Your task to perform on an android device: turn vacation reply on in the gmail app Image 0: 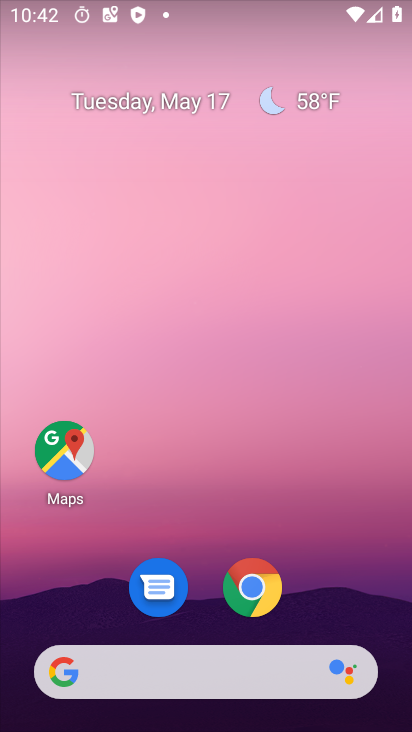
Step 0: drag from (313, 614) to (221, 145)
Your task to perform on an android device: turn vacation reply on in the gmail app Image 1: 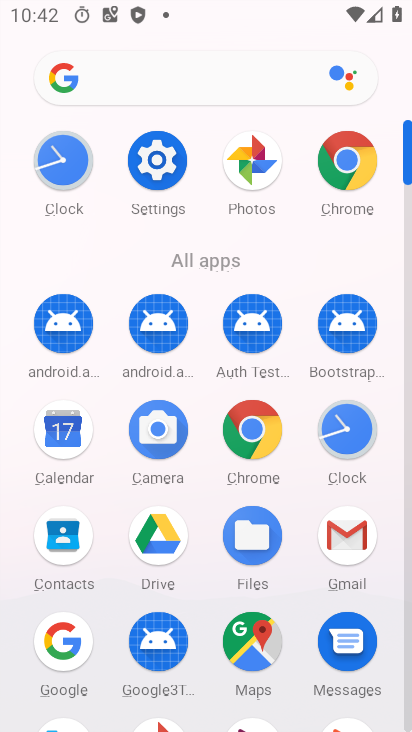
Step 1: drag from (297, 490) to (299, 305)
Your task to perform on an android device: turn vacation reply on in the gmail app Image 2: 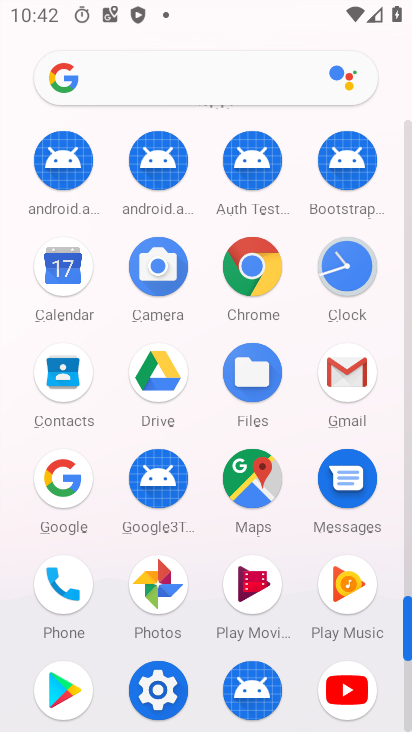
Step 2: click (348, 372)
Your task to perform on an android device: turn vacation reply on in the gmail app Image 3: 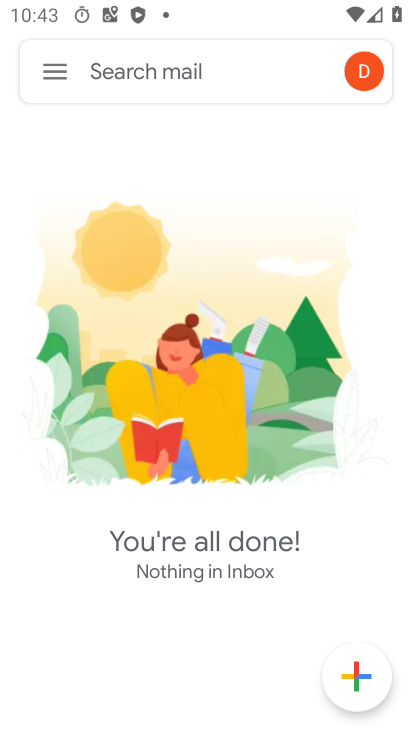
Step 3: click (56, 67)
Your task to perform on an android device: turn vacation reply on in the gmail app Image 4: 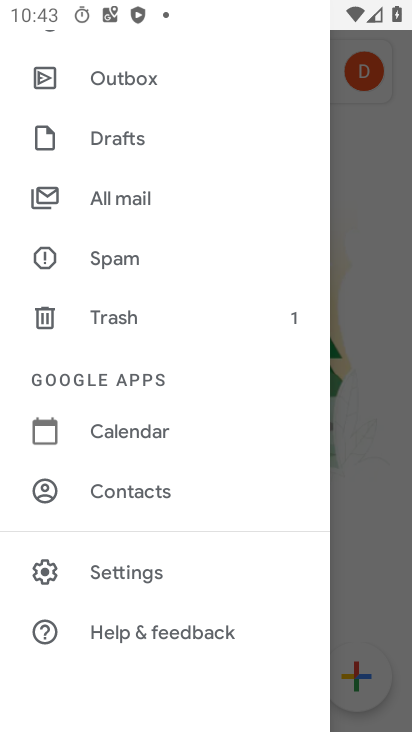
Step 4: click (120, 572)
Your task to perform on an android device: turn vacation reply on in the gmail app Image 5: 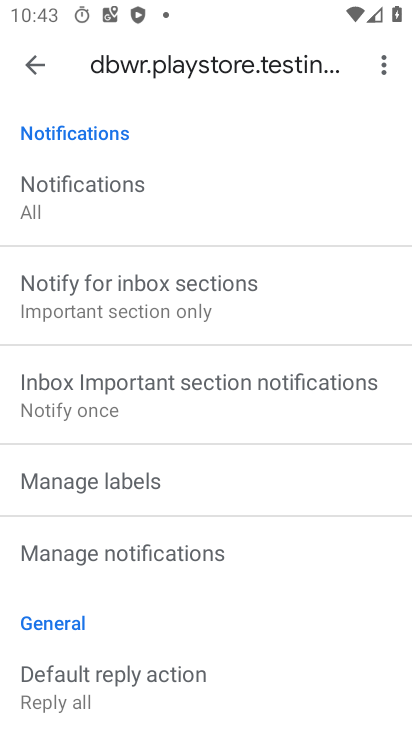
Step 5: drag from (151, 500) to (182, 403)
Your task to perform on an android device: turn vacation reply on in the gmail app Image 6: 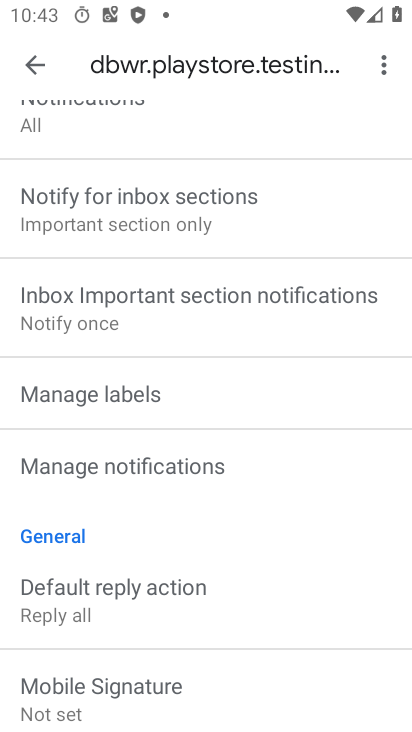
Step 6: drag from (137, 534) to (178, 452)
Your task to perform on an android device: turn vacation reply on in the gmail app Image 7: 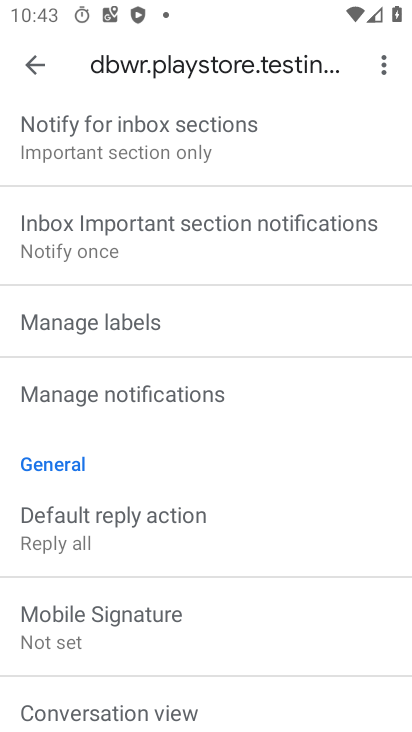
Step 7: drag from (151, 571) to (198, 472)
Your task to perform on an android device: turn vacation reply on in the gmail app Image 8: 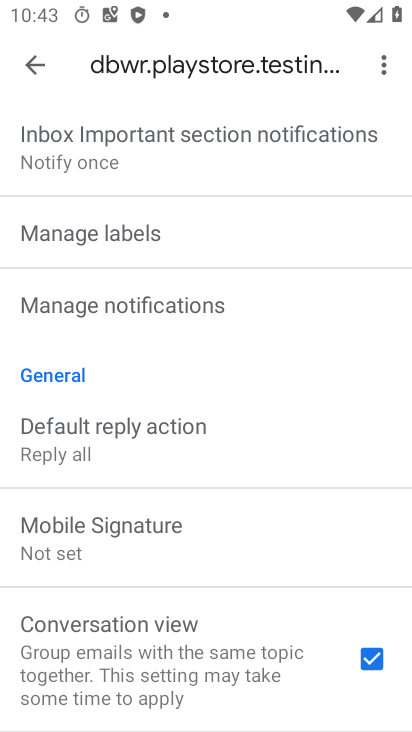
Step 8: drag from (140, 564) to (193, 476)
Your task to perform on an android device: turn vacation reply on in the gmail app Image 9: 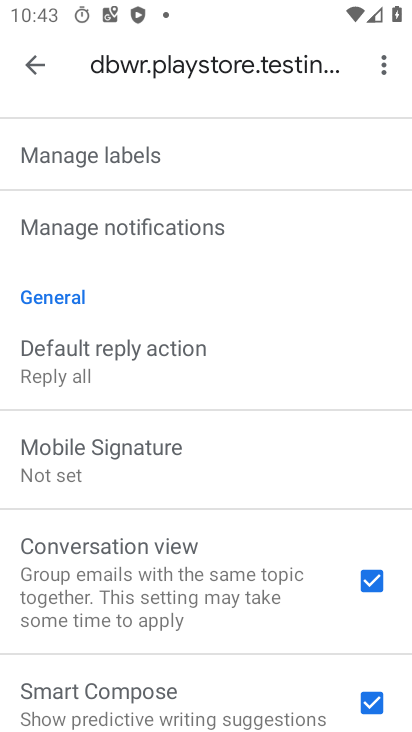
Step 9: drag from (120, 633) to (174, 549)
Your task to perform on an android device: turn vacation reply on in the gmail app Image 10: 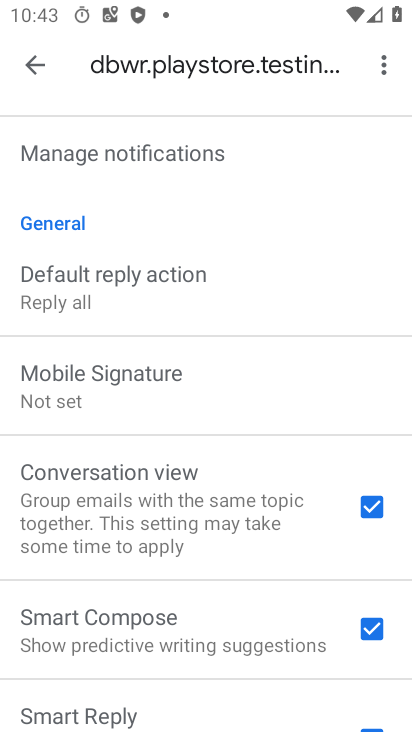
Step 10: drag from (145, 598) to (206, 504)
Your task to perform on an android device: turn vacation reply on in the gmail app Image 11: 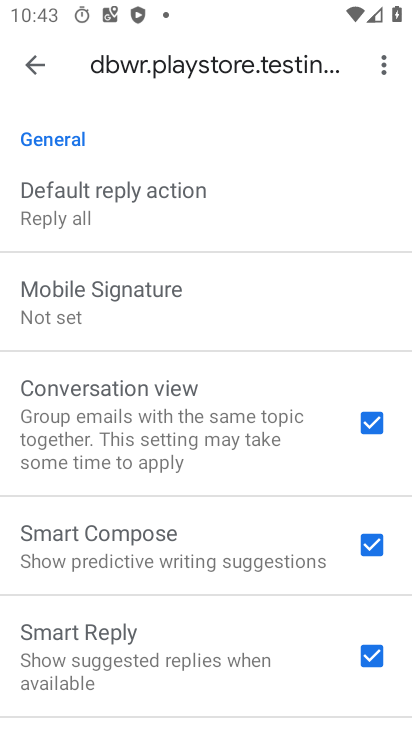
Step 11: drag from (128, 631) to (187, 523)
Your task to perform on an android device: turn vacation reply on in the gmail app Image 12: 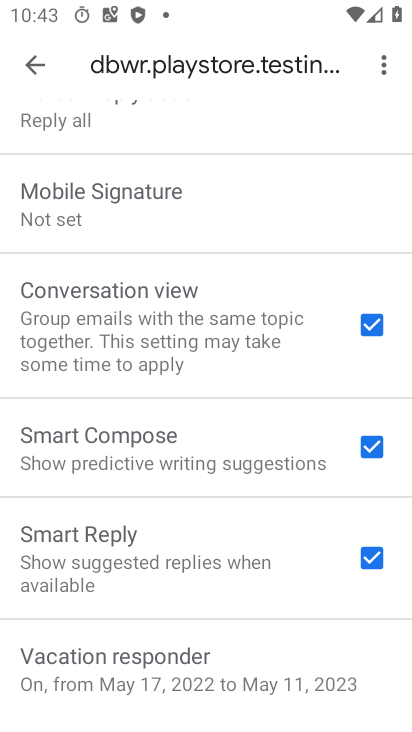
Step 12: drag from (127, 610) to (226, 448)
Your task to perform on an android device: turn vacation reply on in the gmail app Image 13: 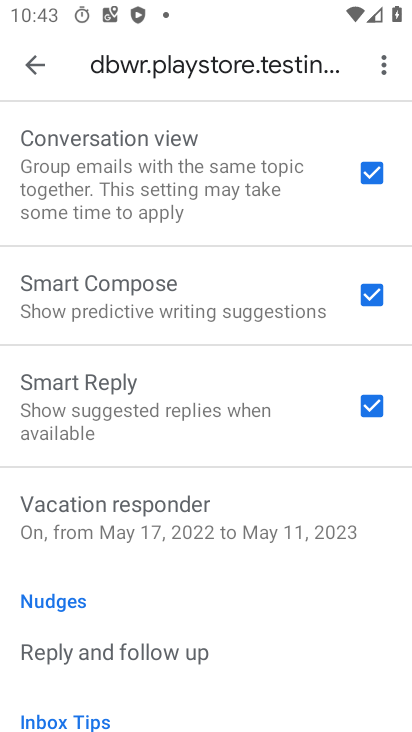
Step 13: click (131, 520)
Your task to perform on an android device: turn vacation reply on in the gmail app Image 14: 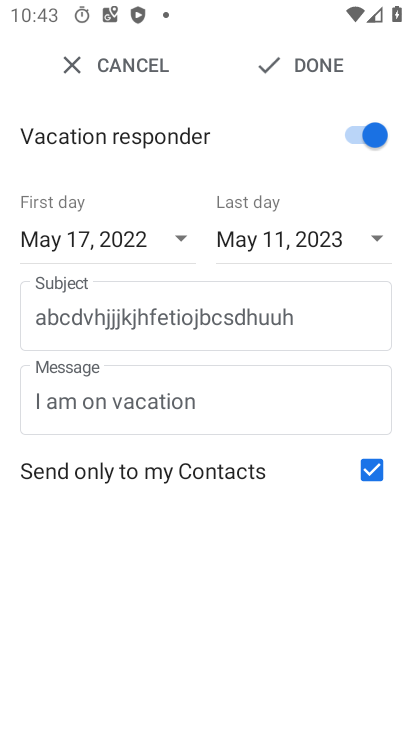
Step 14: task complete